Your task to perform on an android device: Open CNN.com Image 0: 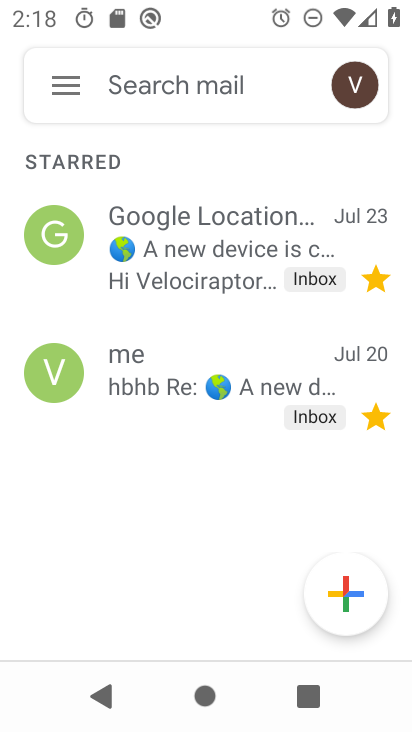
Step 0: press back button
Your task to perform on an android device: Open CNN.com Image 1: 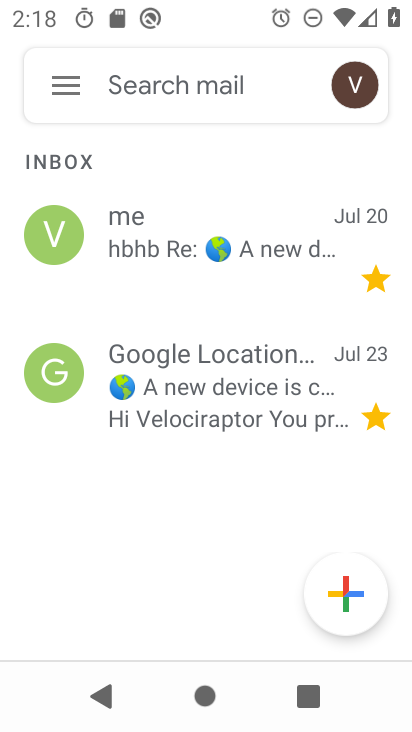
Step 1: press back button
Your task to perform on an android device: Open CNN.com Image 2: 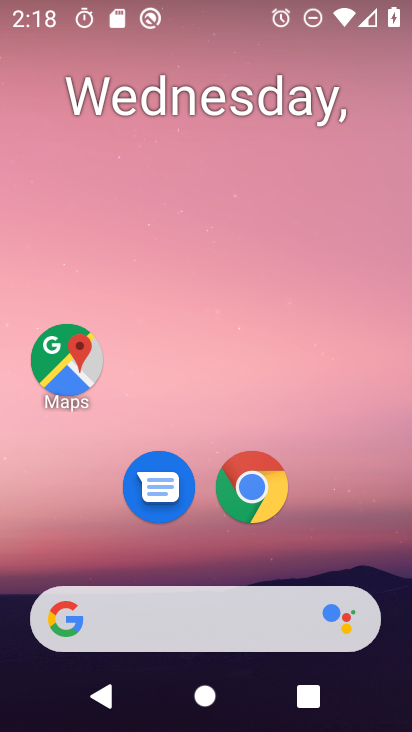
Step 2: click (244, 478)
Your task to perform on an android device: Open CNN.com Image 3: 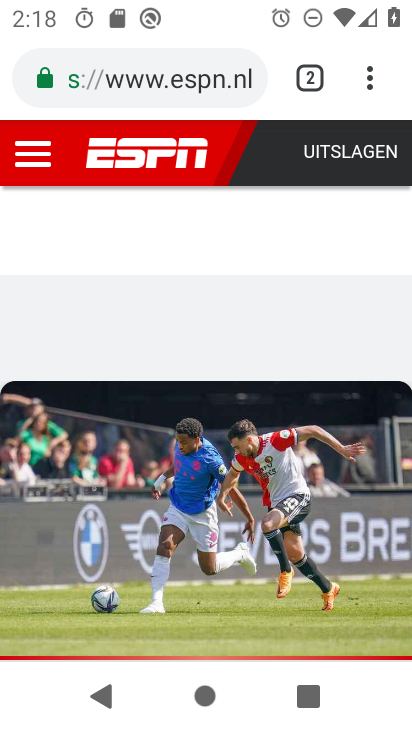
Step 3: click (295, 86)
Your task to perform on an android device: Open CNN.com Image 4: 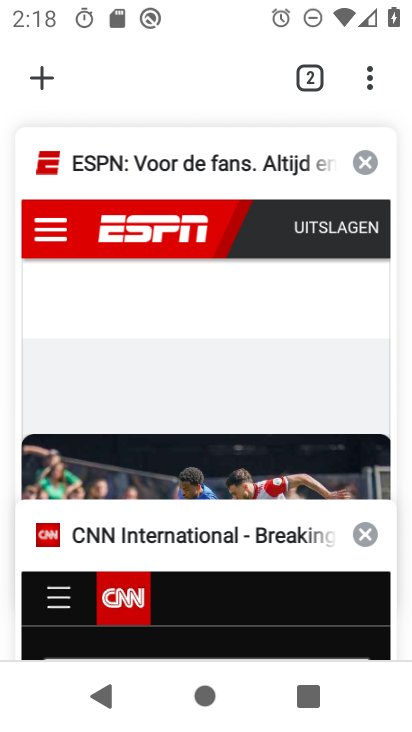
Step 4: click (50, 69)
Your task to perform on an android device: Open CNN.com Image 5: 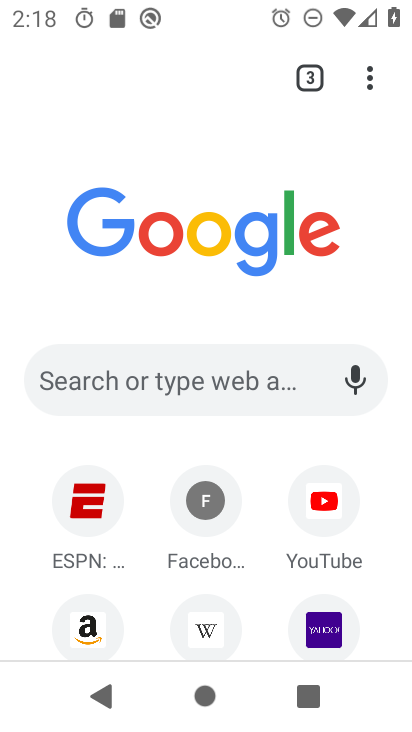
Step 5: click (142, 376)
Your task to perform on an android device: Open CNN.com Image 6: 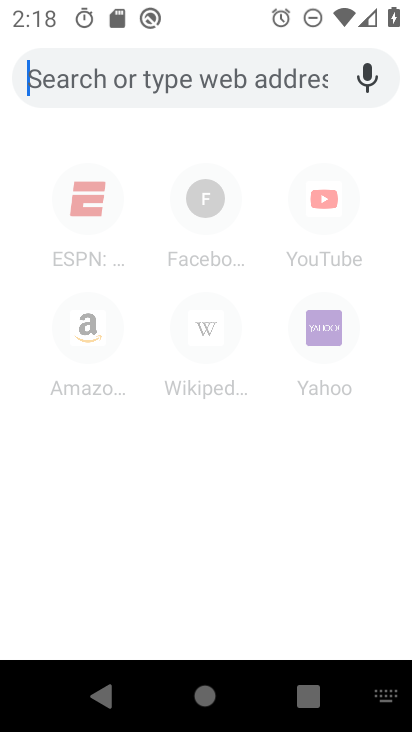
Step 6: type "cnn.com"
Your task to perform on an android device: Open CNN.com Image 7: 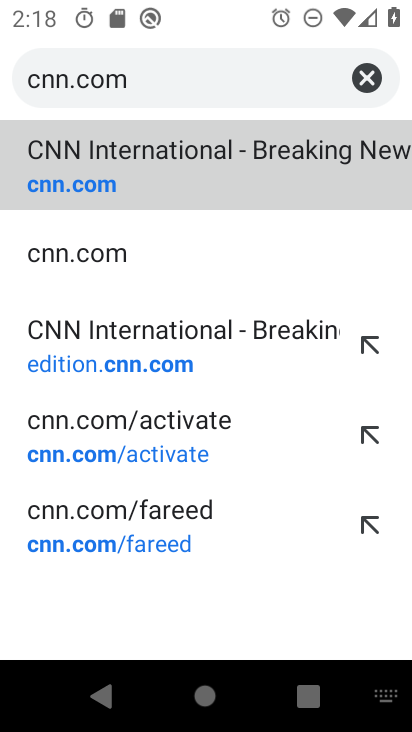
Step 7: click (175, 187)
Your task to perform on an android device: Open CNN.com Image 8: 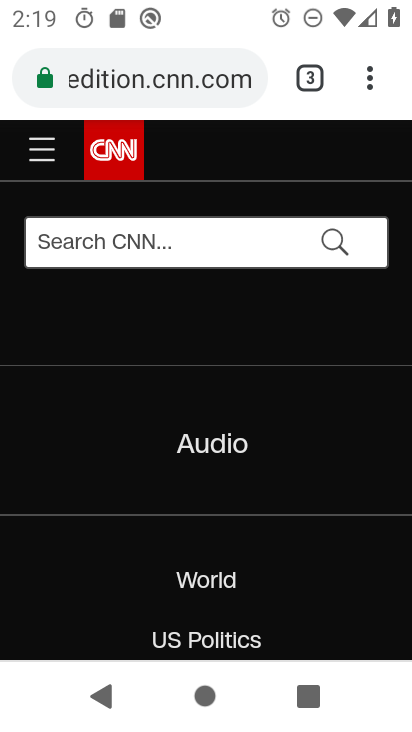
Step 8: task complete